Your task to perform on an android device: Go to eBay Image 0: 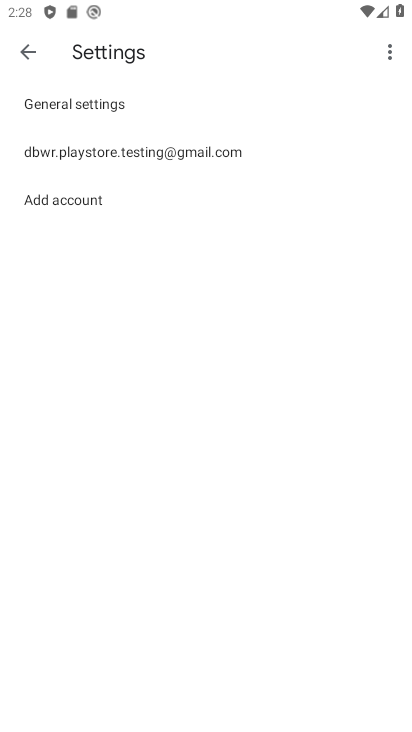
Step 0: press home button
Your task to perform on an android device: Go to eBay Image 1: 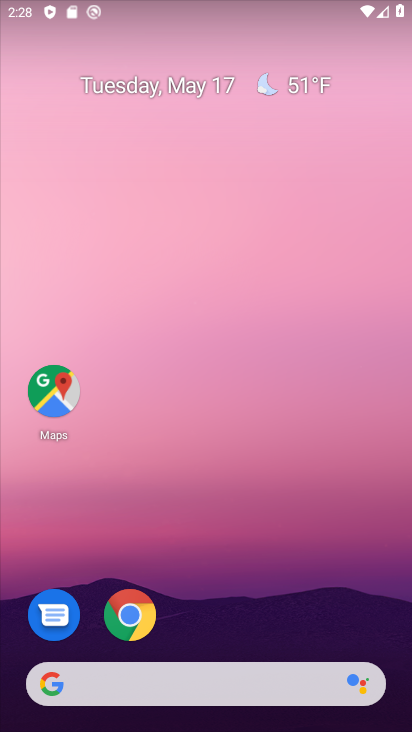
Step 1: click (126, 609)
Your task to perform on an android device: Go to eBay Image 2: 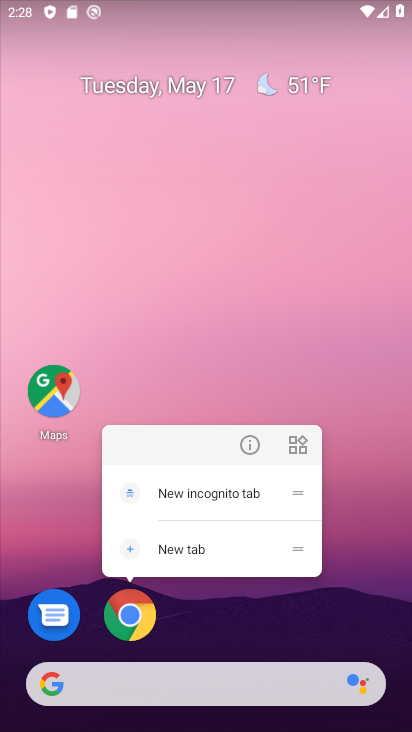
Step 2: click (126, 609)
Your task to perform on an android device: Go to eBay Image 3: 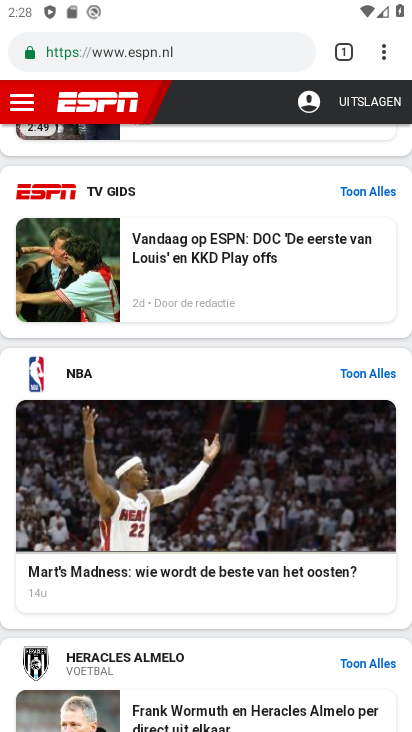
Step 3: click (335, 49)
Your task to perform on an android device: Go to eBay Image 4: 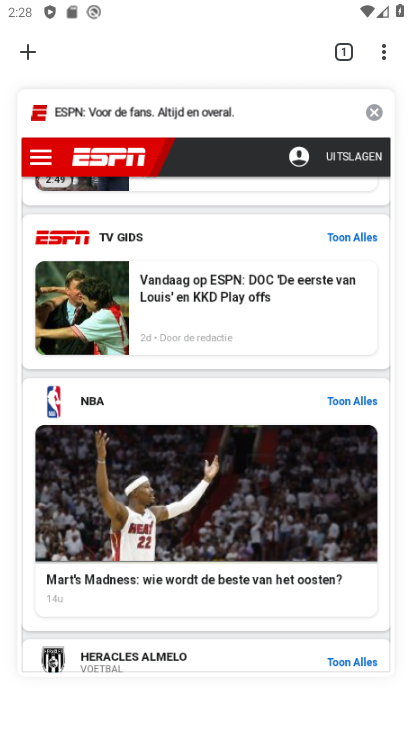
Step 4: click (374, 112)
Your task to perform on an android device: Go to eBay Image 5: 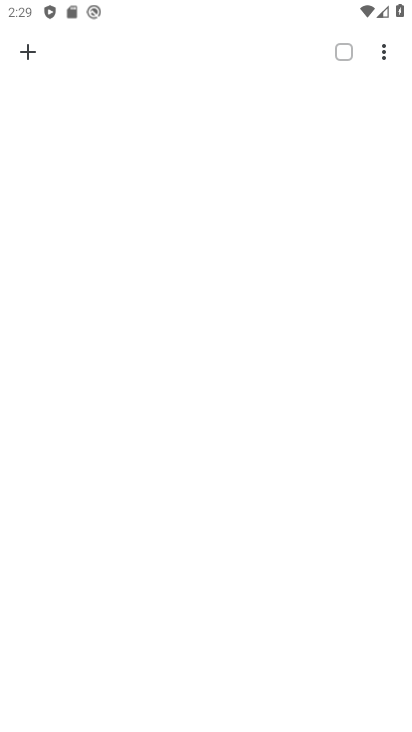
Step 5: click (31, 48)
Your task to perform on an android device: Go to eBay Image 6: 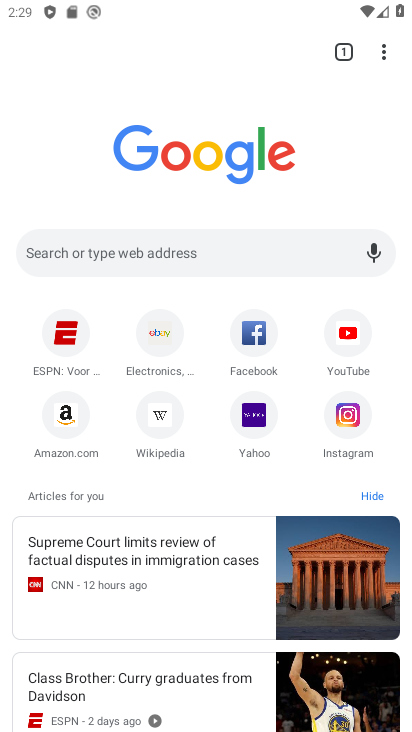
Step 6: click (160, 329)
Your task to perform on an android device: Go to eBay Image 7: 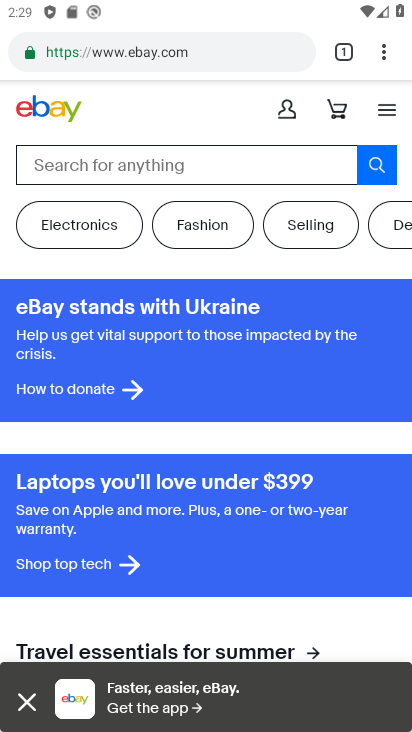
Step 7: task complete